Your task to perform on an android device: all mails in gmail Image 0: 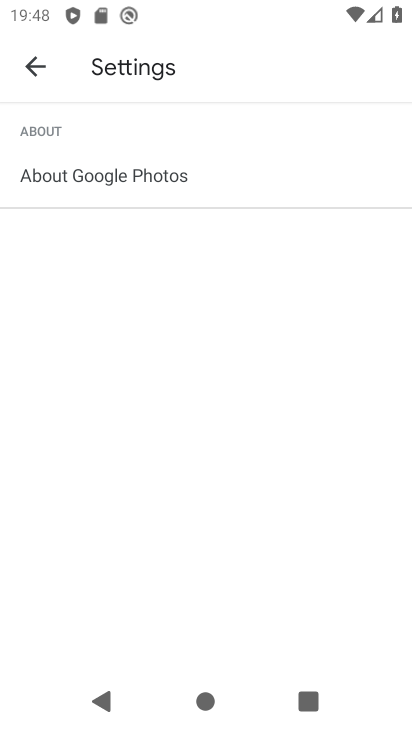
Step 0: press home button
Your task to perform on an android device: all mails in gmail Image 1: 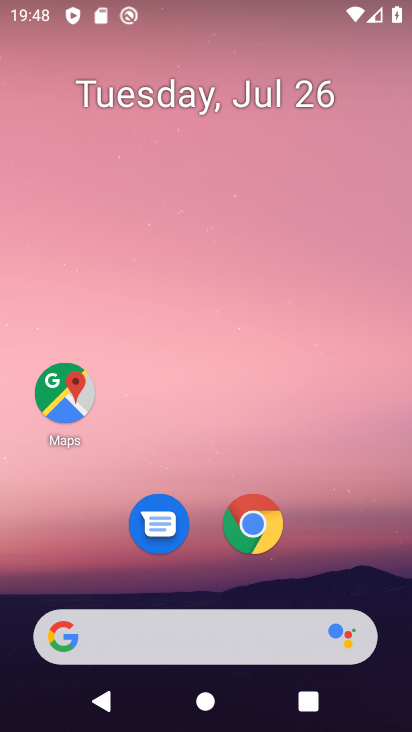
Step 1: drag from (202, 631) to (392, 94)
Your task to perform on an android device: all mails in gmail Image 2: 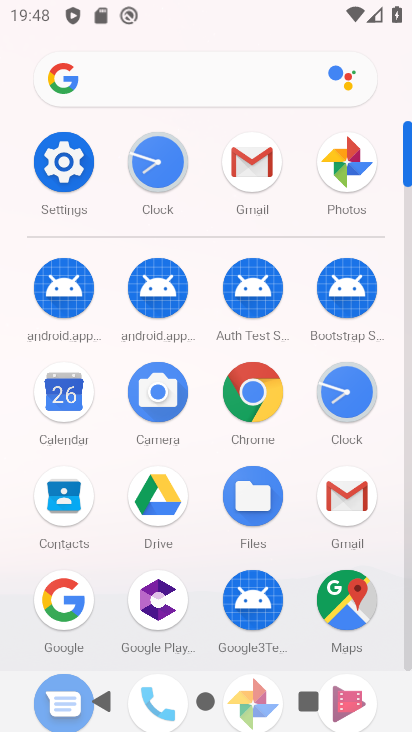
Step 2: click (255, 165)
Your task to perform on an android device: all mails in gmail Image 3: 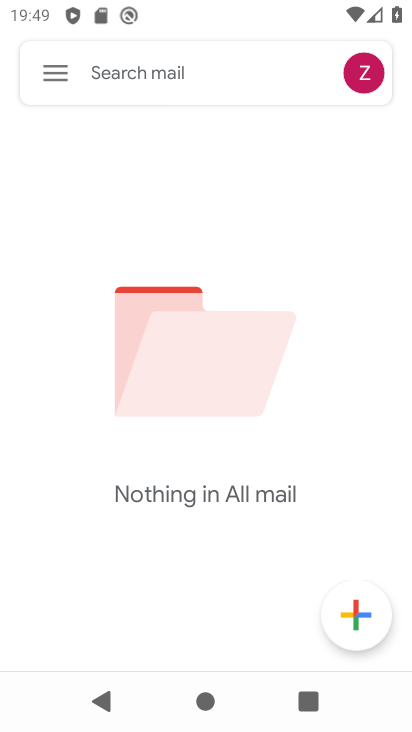
Step 3: task complete